Your task to perform on an android device: Go to notification settings Image 0: 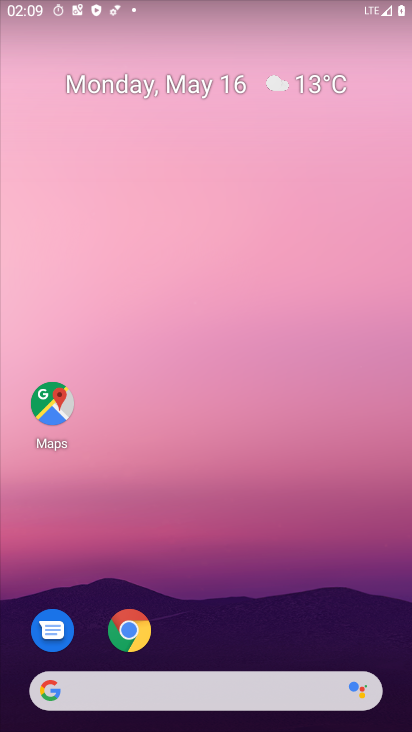
Step 0: drag from (242, 606) to (283, 133)
Your task to perform on an android device: Go to notification settings Image 1: 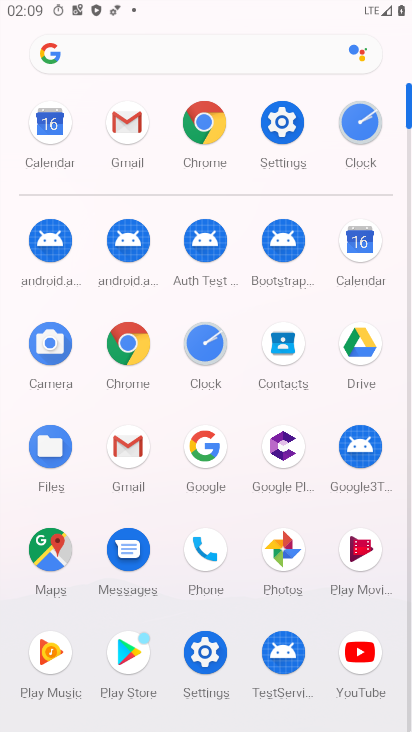
Step 1: click (197, 653)
Your task to perform on an android device: Go to notification settings Image 2: 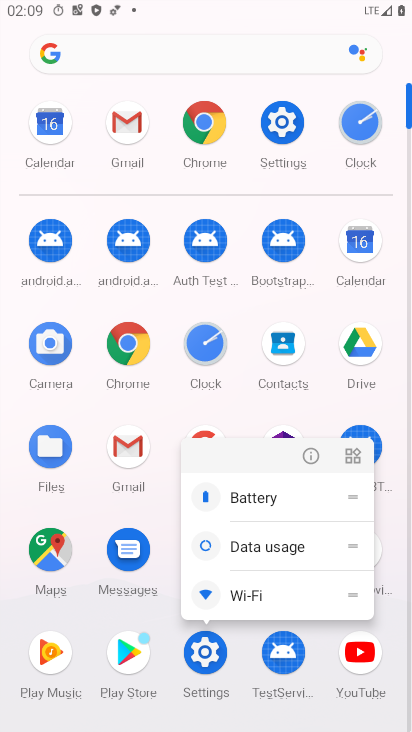
Step 2: click (201, 665)
Your task to perform on an android device: Go to notification settings Image 3: 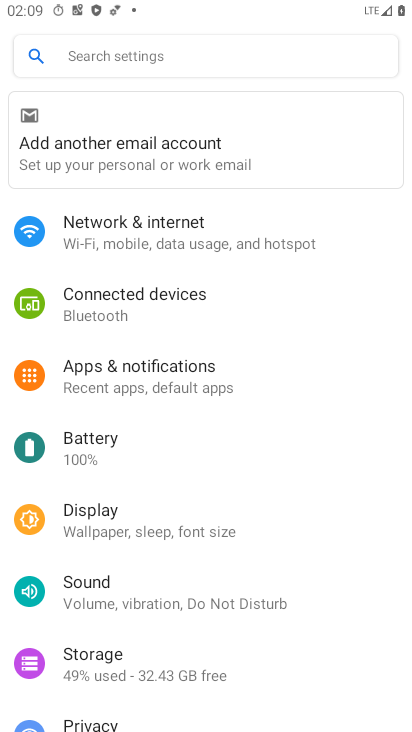
Step 3: click (142, 372)
Your task to perform on an android device: Go to notification settings Image 4: 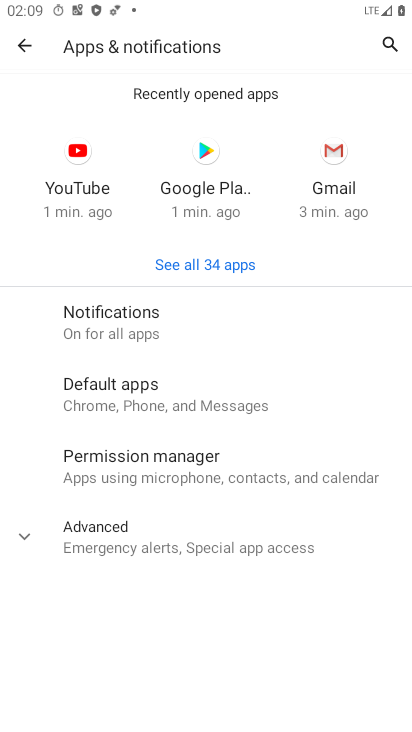
Step 4: click (131, 310)
Your task to perform on an android device: Go to notification settings Image 5: 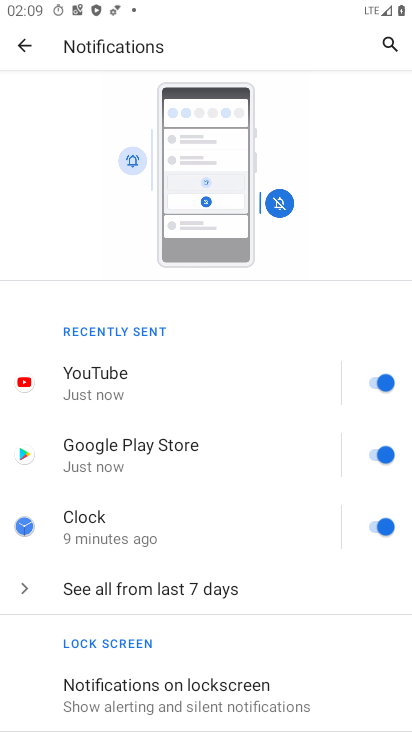
Step 5: drag from (272, 638) to (230, 413)
Your task to perform on an android device: Go to notification settings Image 6: 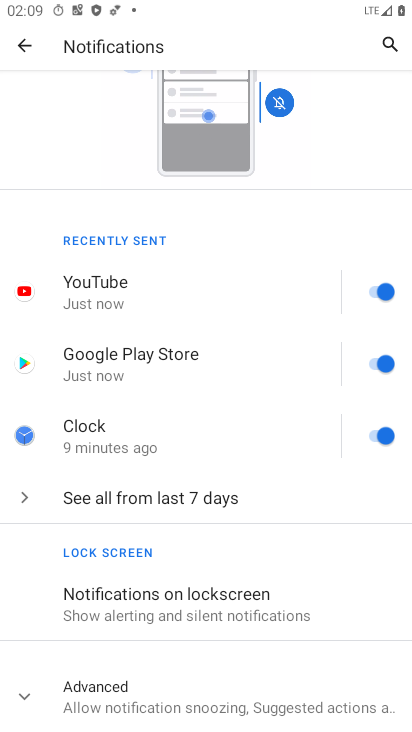
Step 6: click (172, 703)
Your task to perform on an android device: Go to notification settings Image 7: 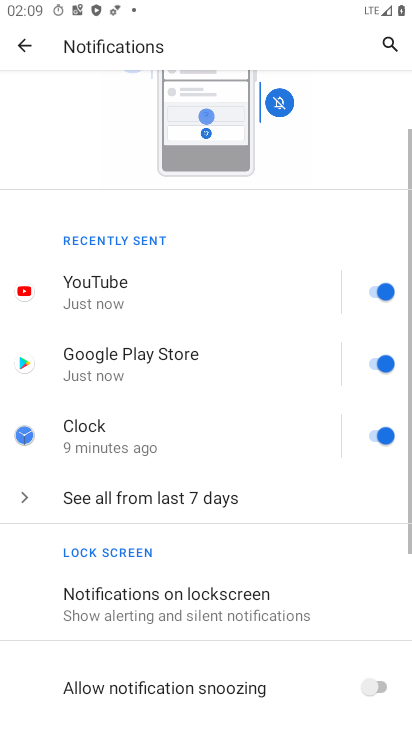
Step 7: task complete